Your task to perform on an android device: Go to notification settings Image 0: 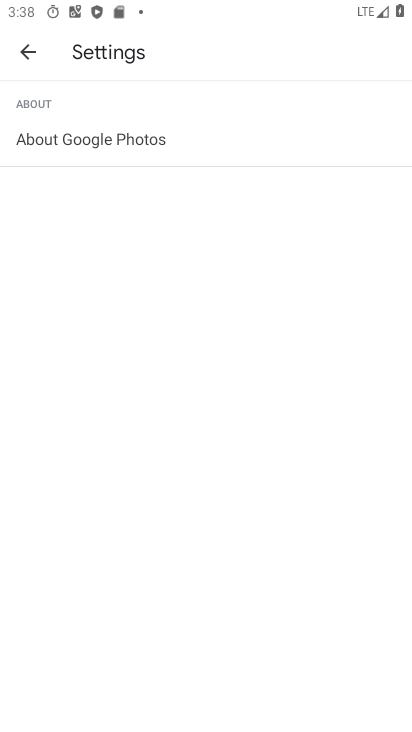
Step 0: press home button
Your task to perform on an android device: Go to notification settings Image 1: 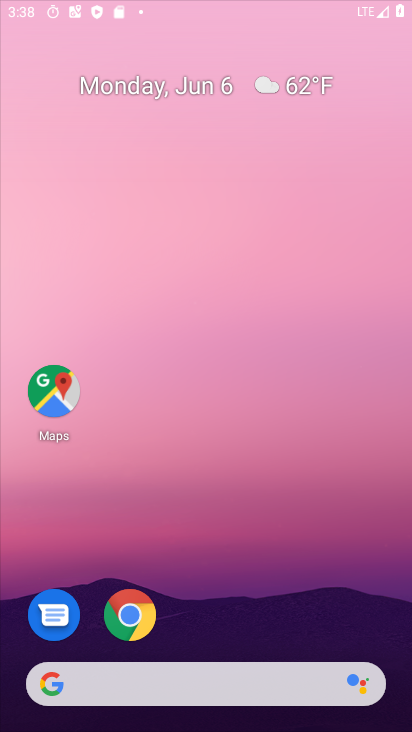
Step 1: drag from (289, 688) to (239, 7)
Your task to perform on an android device: Go to notification settings Image 2: 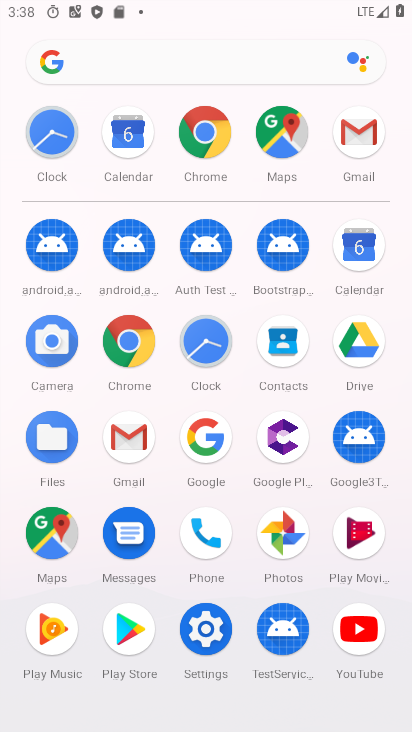
Step 2: click (212, 624)
Your task to perform on an android device: Go to notification settings Image 3: 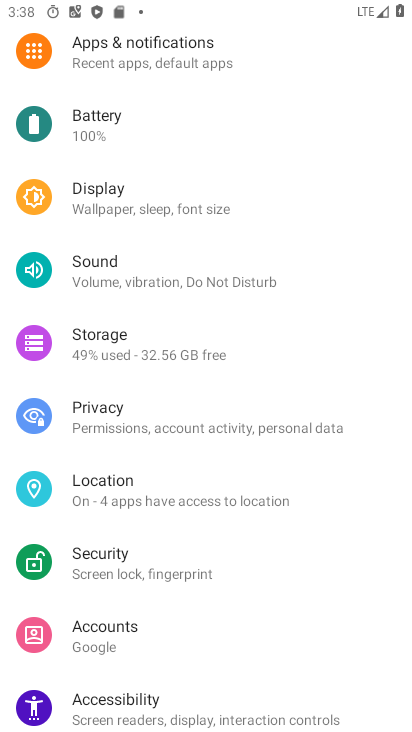
Step 3: click (185, 58)
Your task to perform on an android device: Go to notification settings Image 4: 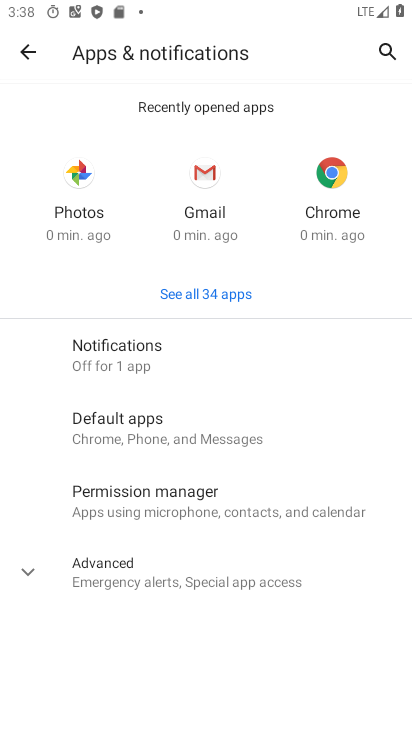
Step 4: task complete